Your task to perform on an android device: open wifi settings Image 0: 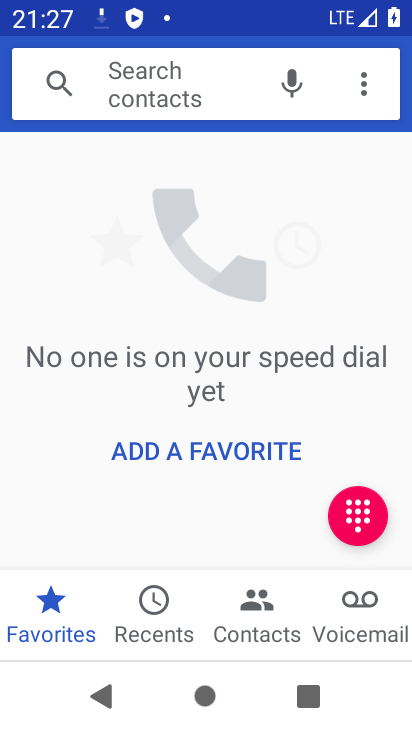
Step 0: press back button
Your task to perform on an android device: open wifi settings Image 1: 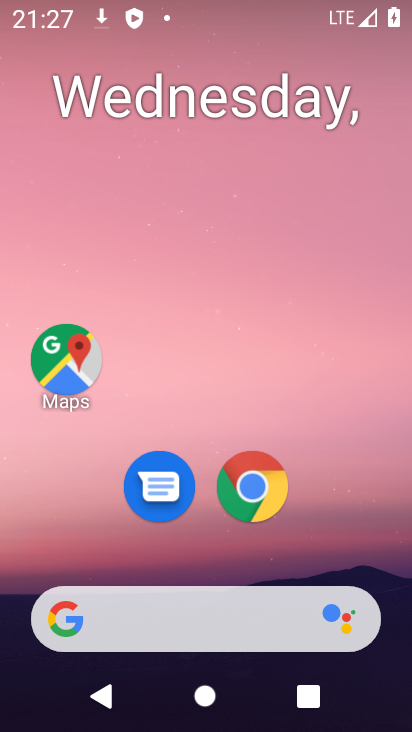
Step 1: drag from (169, 16) to (150, 563)
Your task to perform on an android device: open wifi settings Image 2: 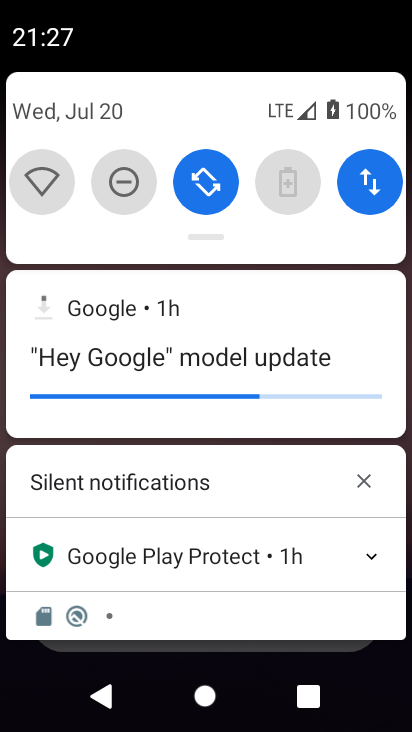
Step 2: click (34, 186)
Your task to perform on an android device: open wifi settings Image 3: 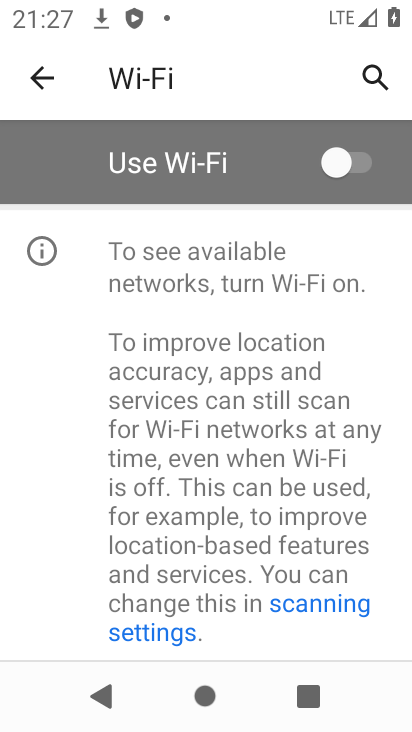
Step 3: task complete